Your task to perform on an android device: Search for "razer kraken" on bestbuy.com, select the first entry, and add it to the cart. Image 0: 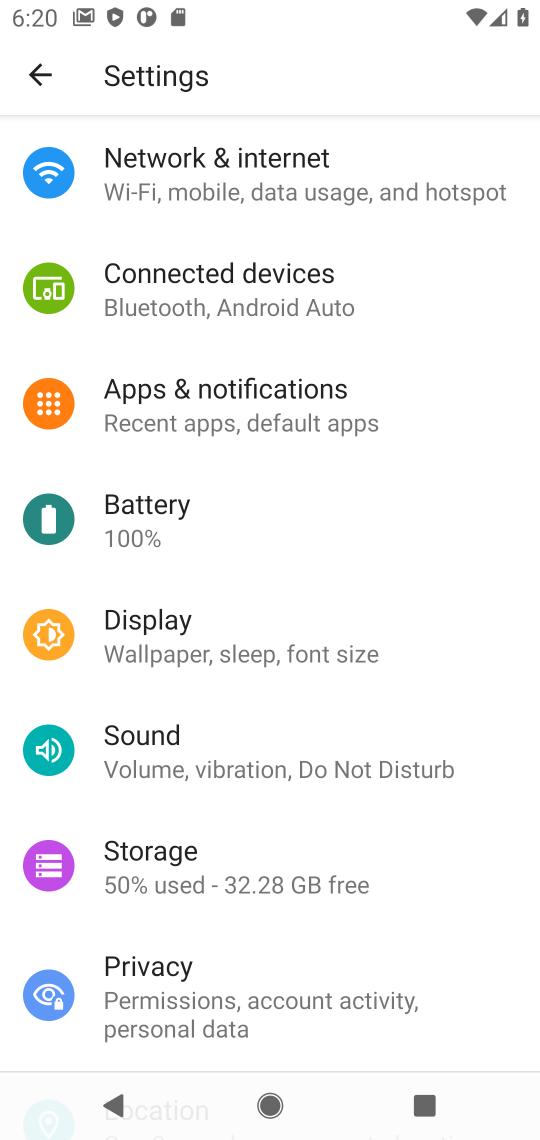
Step 0: press home button
Your task to perform on an android device: Search for "razer kraken" on bestbuy.com, select the first entry, and add it to the cart. Image 1: 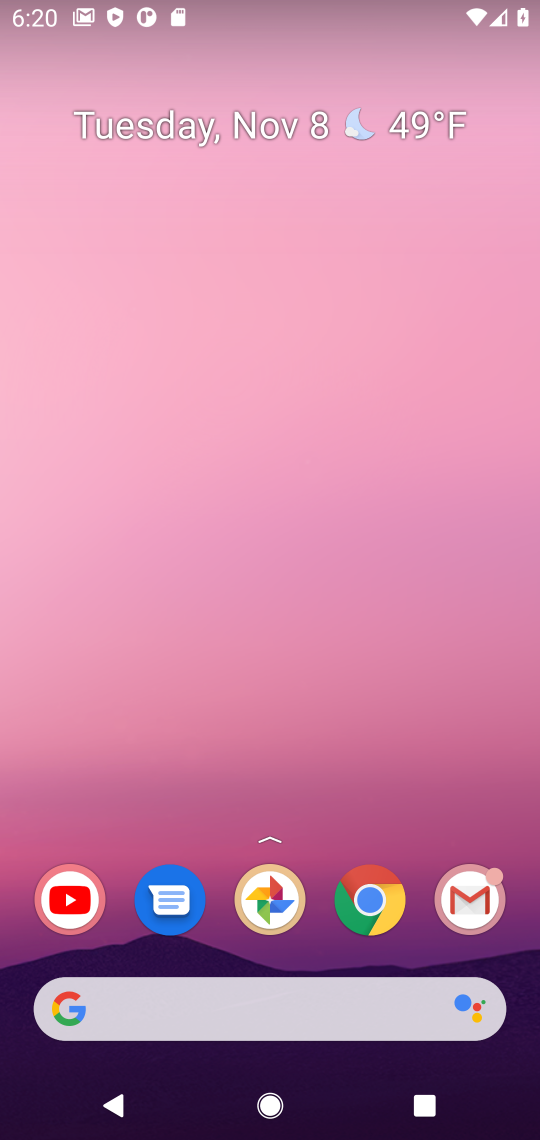
Step 1: click (370, 902)
Your task to perform on an android device: Search for "razer kraken" on bestbuy.com, select the first entry, and add it to the cart. Image 2: 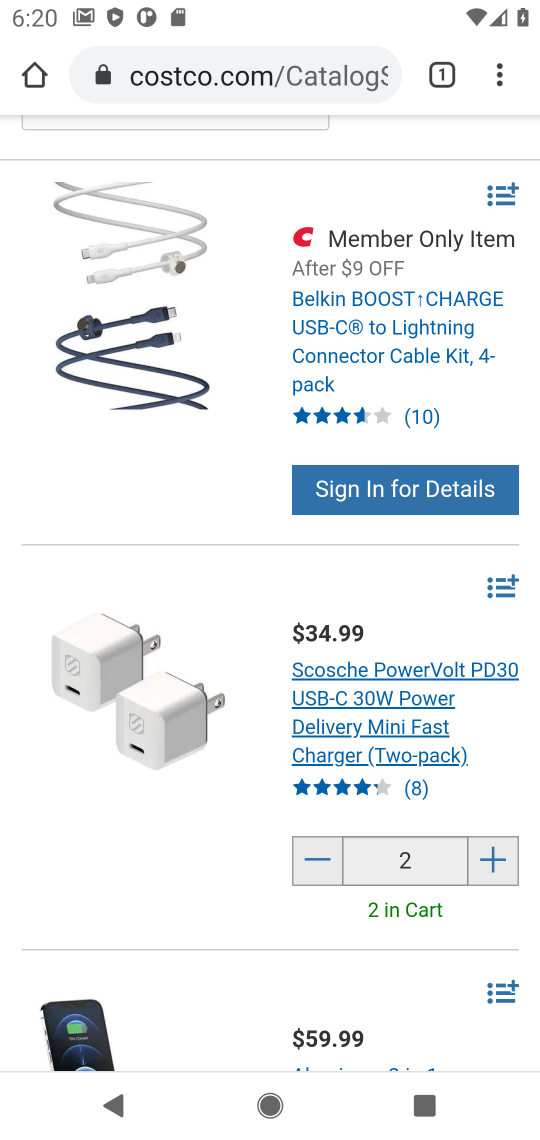
Step 2: click (305, 76)
Your task to perform on an android device: Search for "razer kraken" on bestbuy.com, select the first entry, and add it to the cart. Image 3: 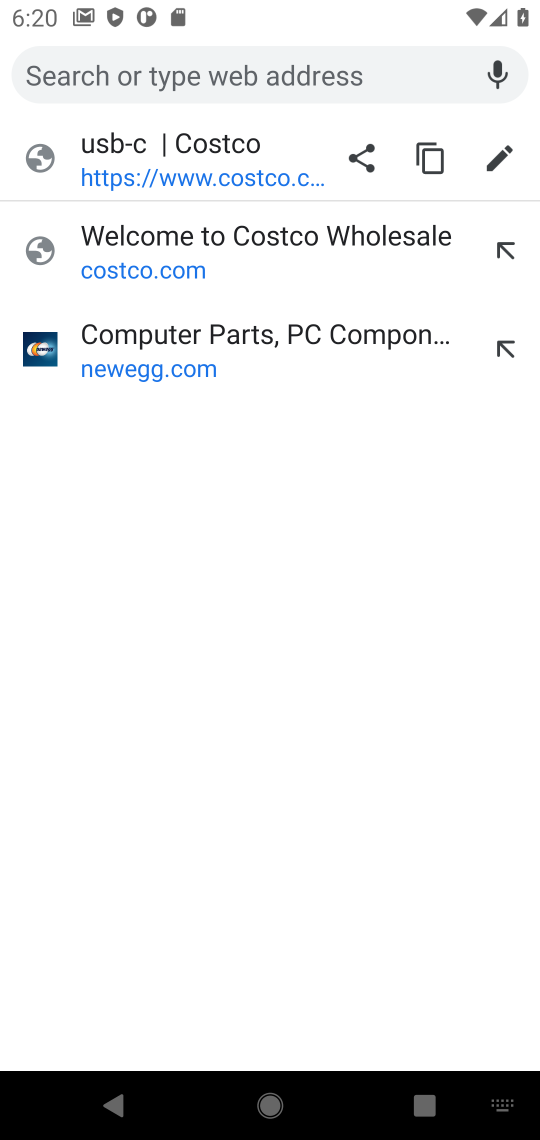
Step 3: type "bestbuy.com"
Your task to perform on an android device: Search for "razer kraken" on bestbuy.com, select the first entry, and add it to the cart. Image 4: 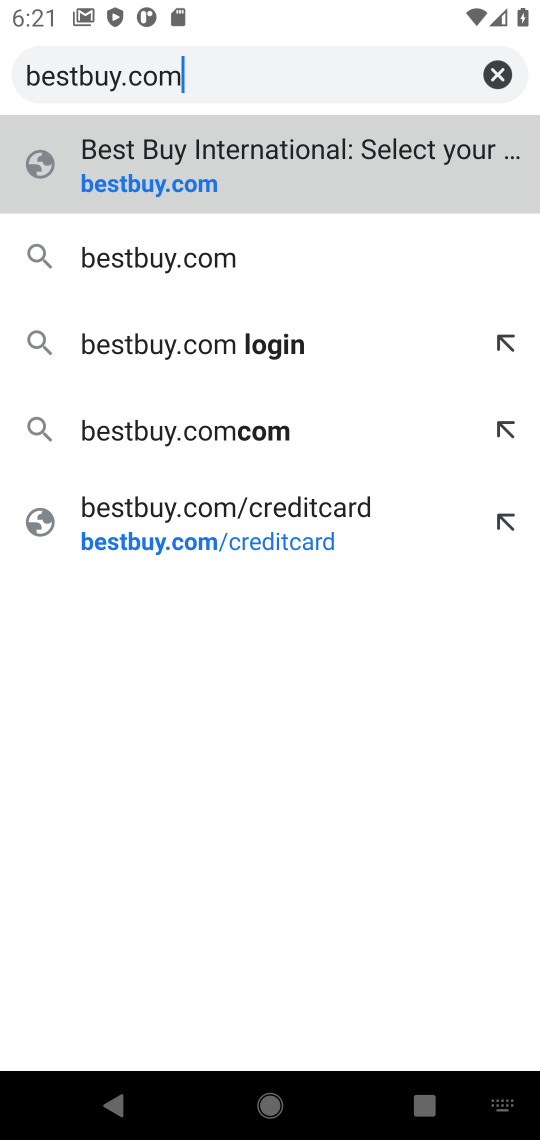
Step 4: press enter
Your task to perform on an android device: Search for "razer kraken" on bestbuy.com, select the first entry, and add it to the cart. Image 5: 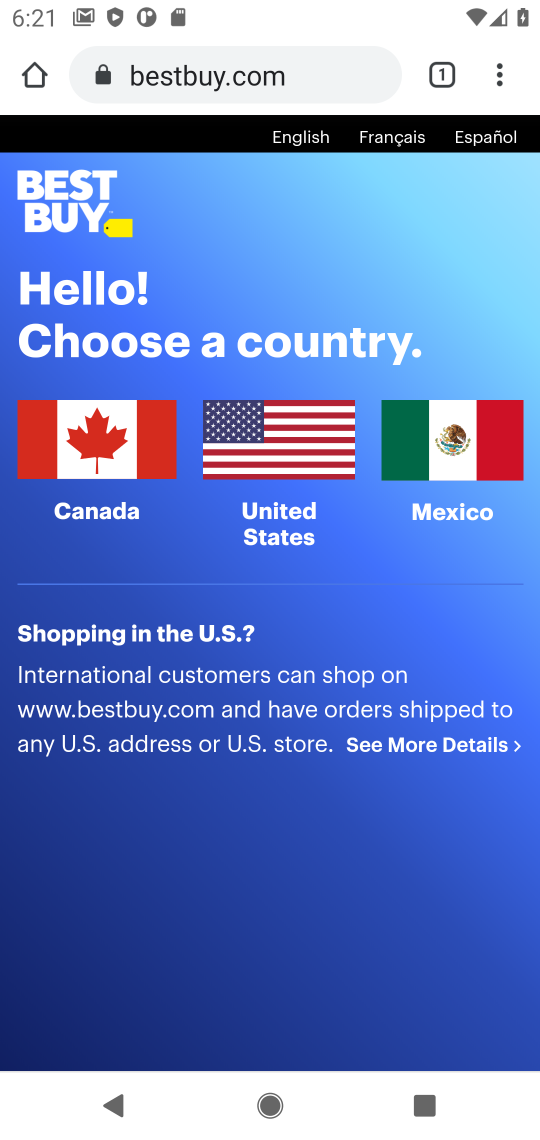
Step 5: click (290, 495)
Your task to perform on an android device: Search for "razer kraken" on bestbuy.com, select the first entry, and add it to the cart. Image 6: 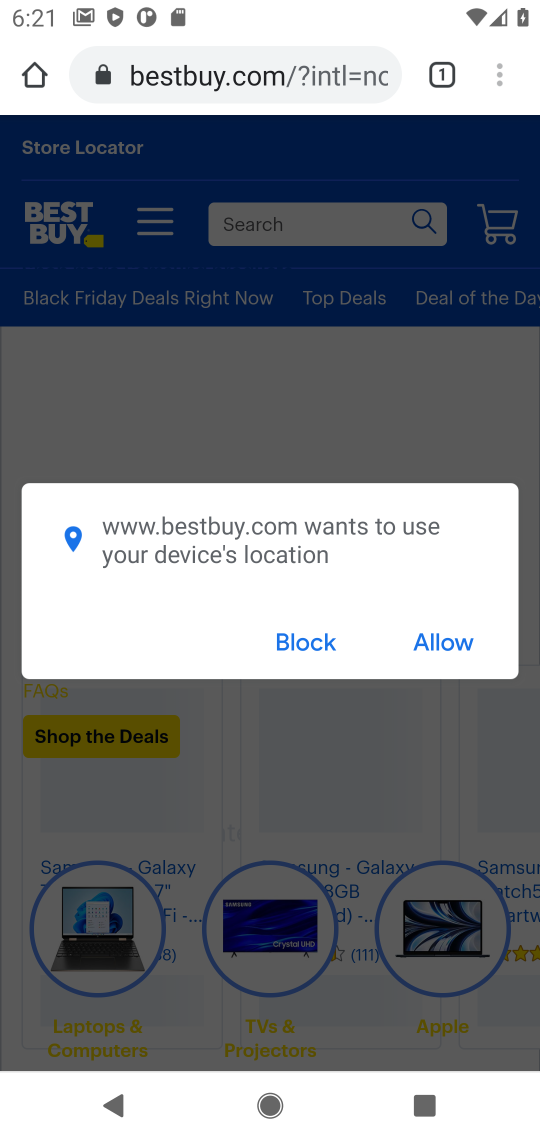
Step 6: click (450, 638)
Your task to perform on an android device: Search for "razer kraken" on bestbuy.com, select the first entry, and add it to the cart. Image 7: 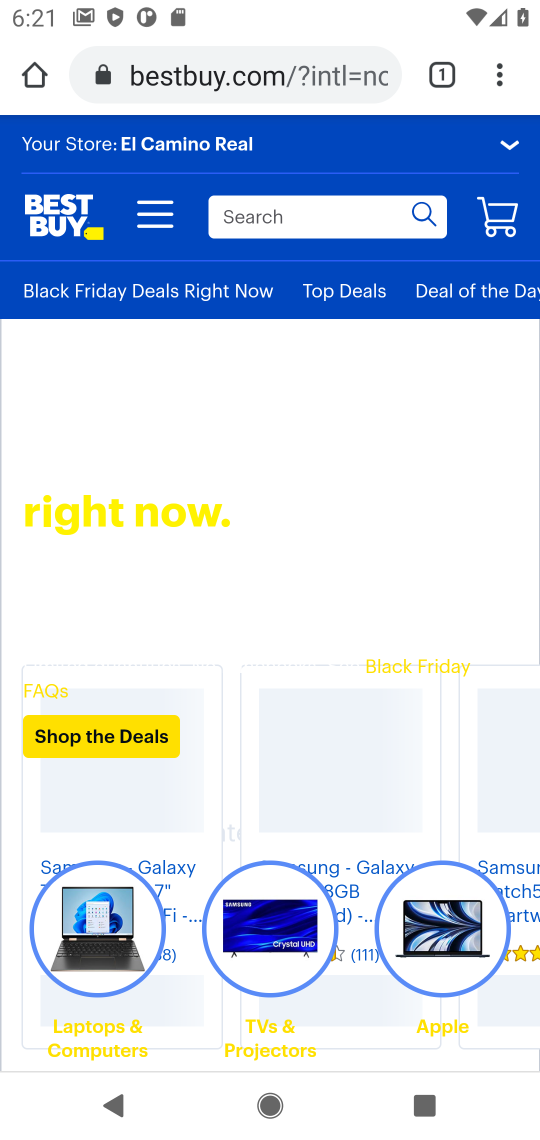
Step 7: click (337, 228)
Your task to perform on an android device: Search for "razer kraken" on bestbuy.com, select the first entry, and add it to the cart. Image 8: 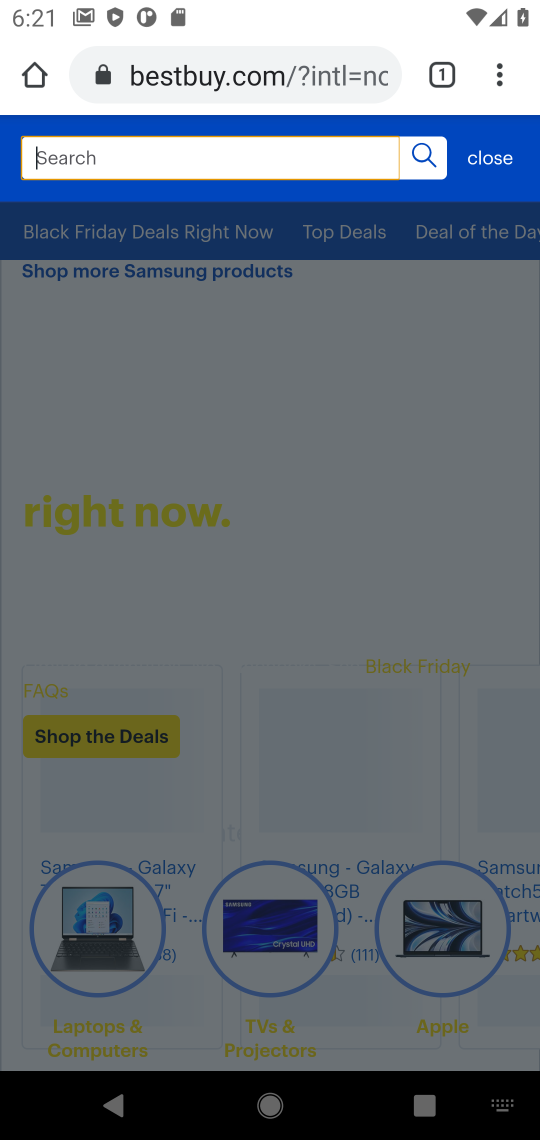
Step 8: type "razer kraken"
Your task to perform on an android device: Search for "razer kraken" on bestbuy.com, select the first entry, and add it to the cart. Image 9: 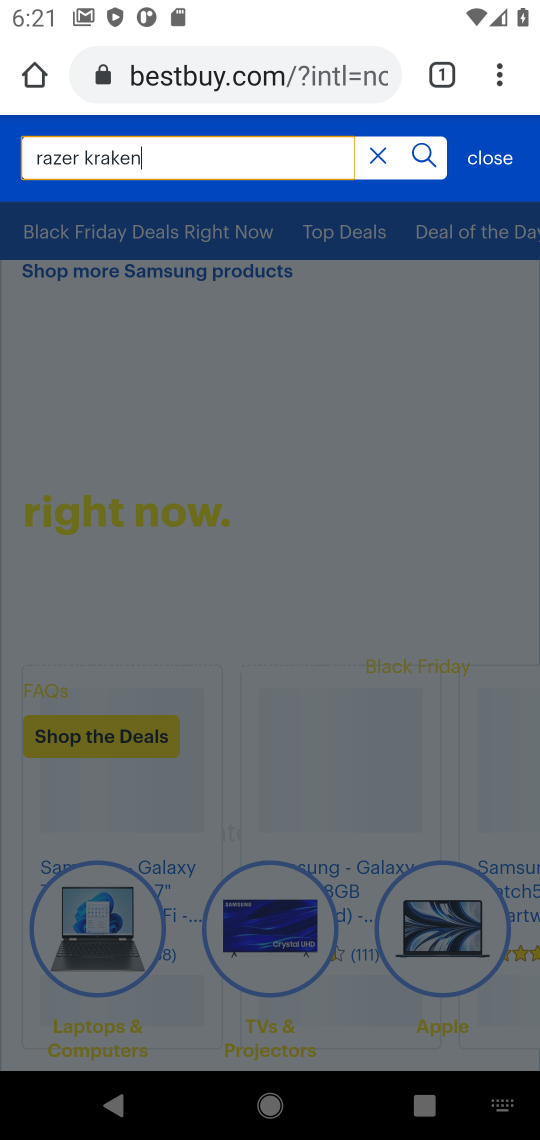
Step 9: type ""
Your task to perform on an android device: Search for "razer kraken" on bestbuy.com, select the first entry, and add it to the cart. Image 10: 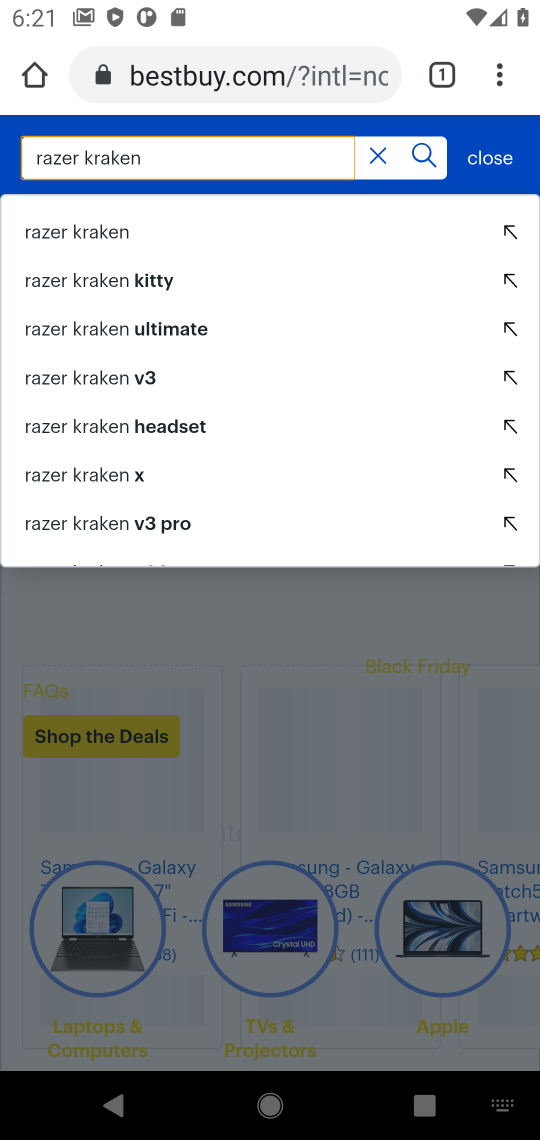
Step 10: press enter
Your task to perform on an android device: Search for "razer kraken" on bestbuy.com, select the first entry, and add it to the cart. Image 11: 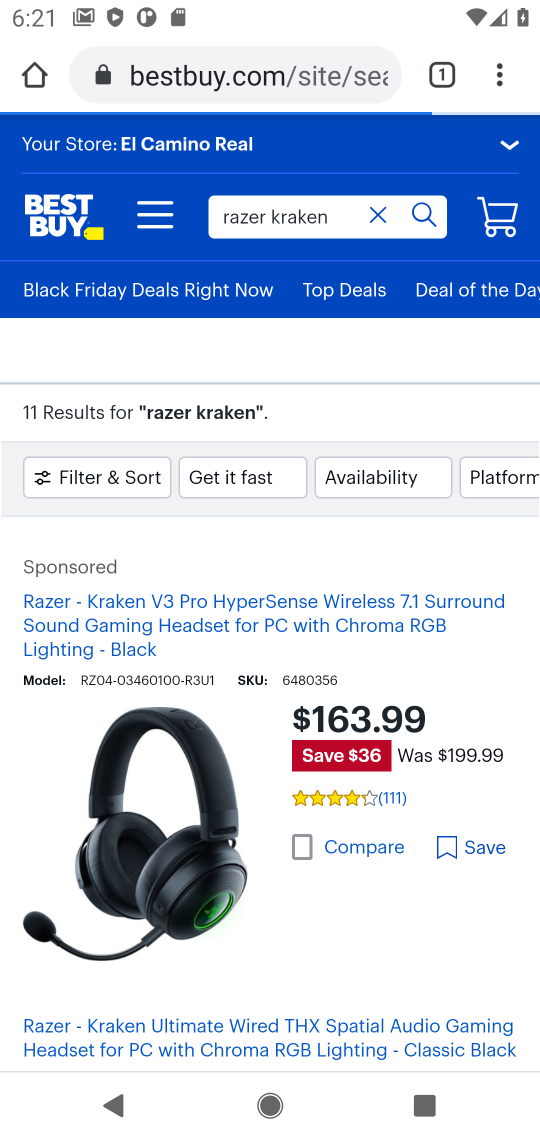
Step 11: drag from (217, 919) to (251, 802)
Your task to perform on an android device: Search for "razer kraken" on bestbuy.com, select the first entry, and add it to the cart. Image 12: 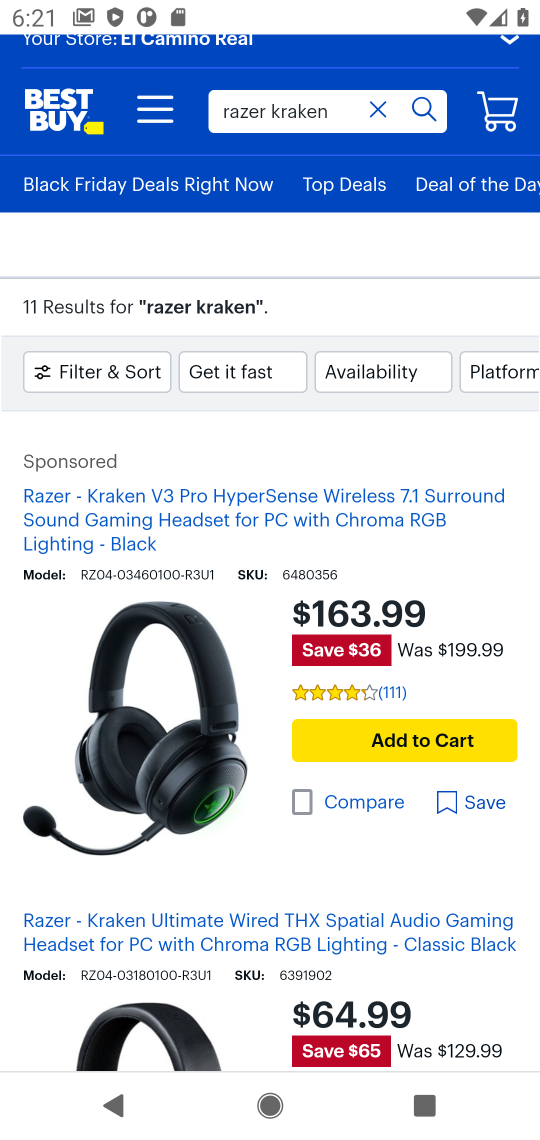
Step 12: click (304, 518)
Your task to perform on an android device: Search for "razer kraken" on bestbuy.com, select the first entry, and add it to the cart. Image 13: 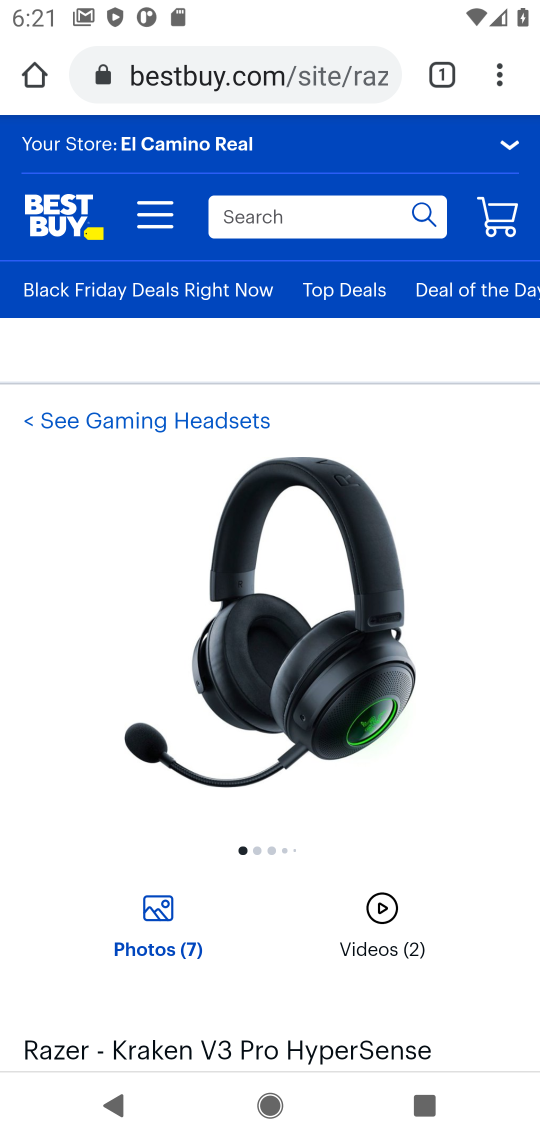
Step 13: drag from (271, 922) to (302, 476)
Your task to perform on an android device: Search for "razer kraken" on bestbuy.com, select the first entry, and add it to the cart. Image 14: 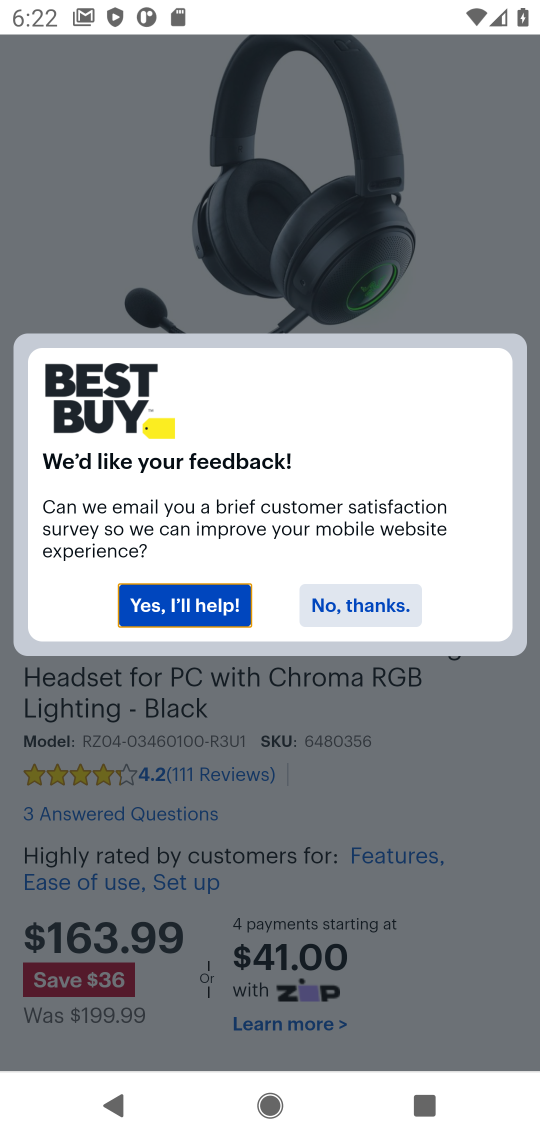
Step 14: click (334, 610)
Your task to perform on an android device: Search for "razer kraken" on bestbuy.com, select the first entry, and add it to the cart. Image 15: 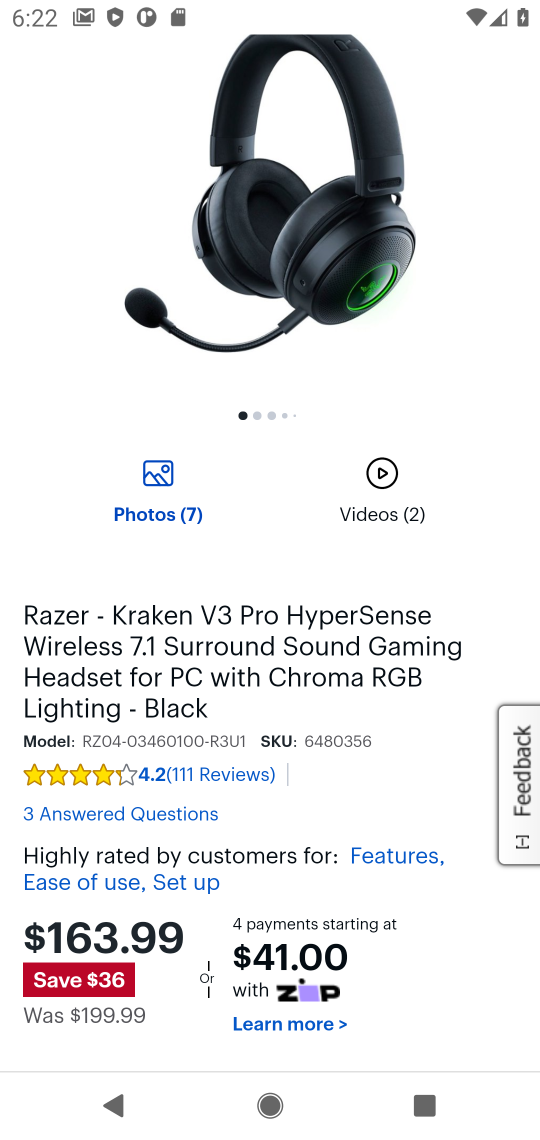
Step 15: drag from (201, 952) to (253, 110)
Your task to perform on an android device: Search for "razer kraken" on bestbuy.com, select the first entry, and add it to the cart. Image 16: 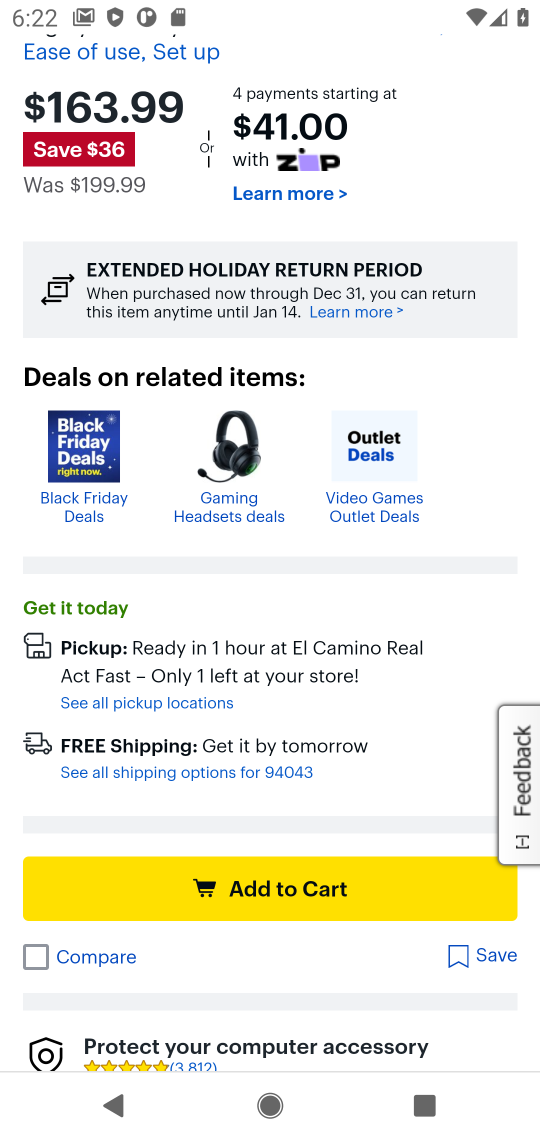
Step 16: click (317, 892)
Your task to perform on an android device: Search for "razer kraken" on bestbuy.com, select the first entry, and add it to the cart. Image 17: 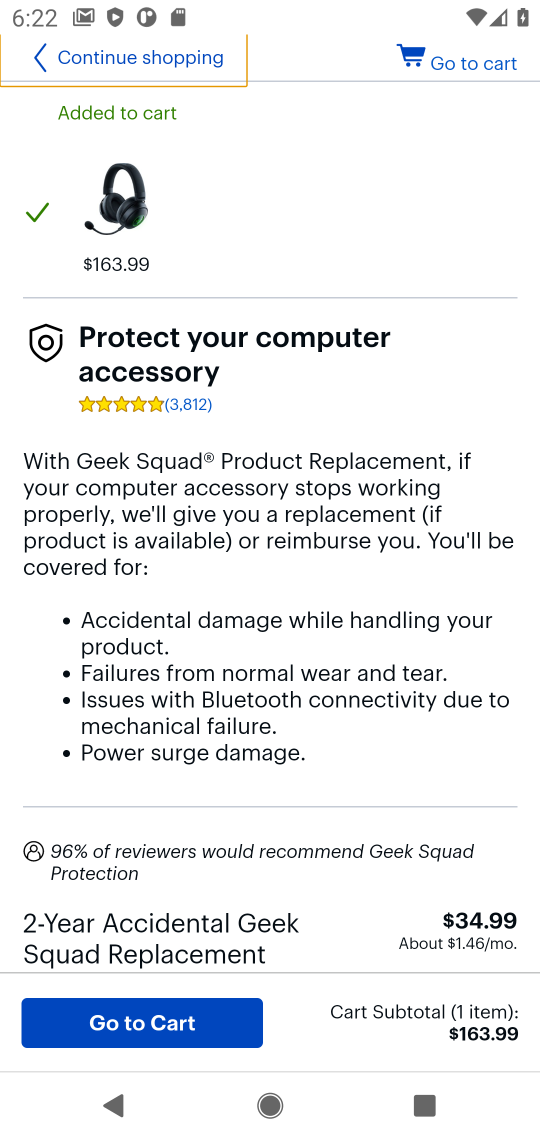
Step 17: task complete